Your task to perform on an android device: make emails show in primary in the gmail app Image 0: 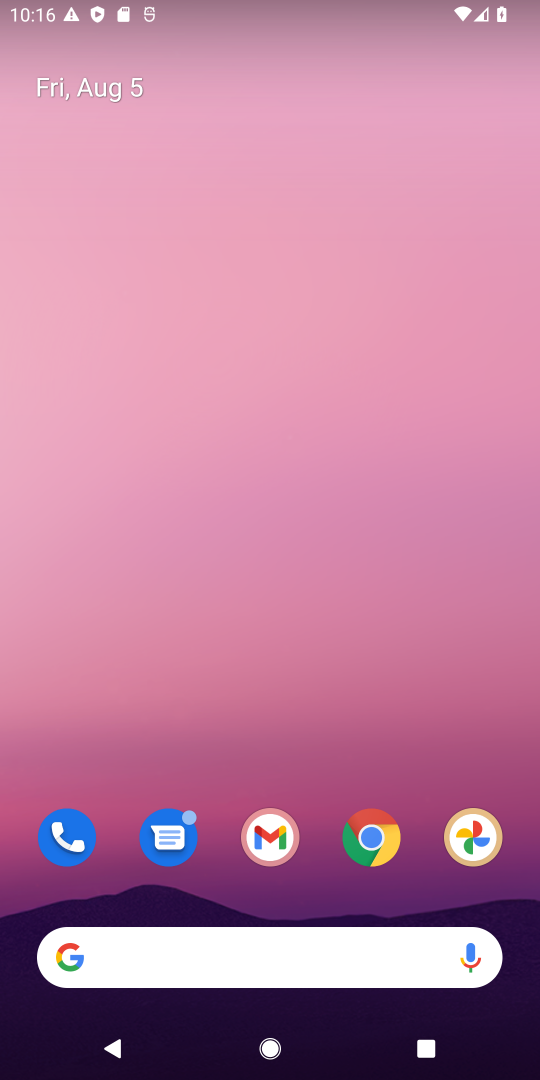
Step 0: click (269, 837)
Your task to perform on an android device: make emails show in primary in the gmail app Image 1: 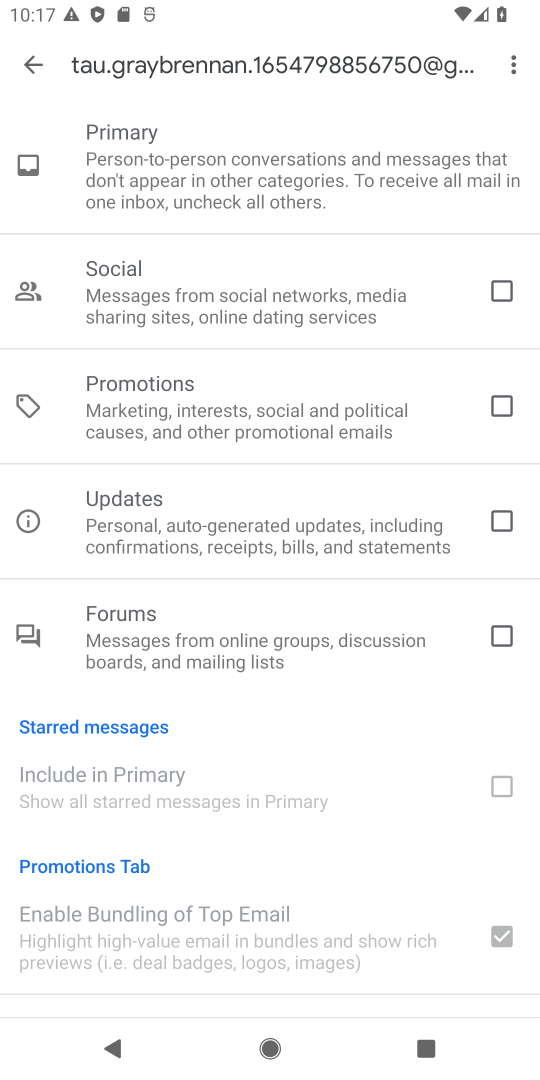
Step 1: click (37, 65)
Your task to perform on an android device: make emails show in primary in the gmail app Image 2: 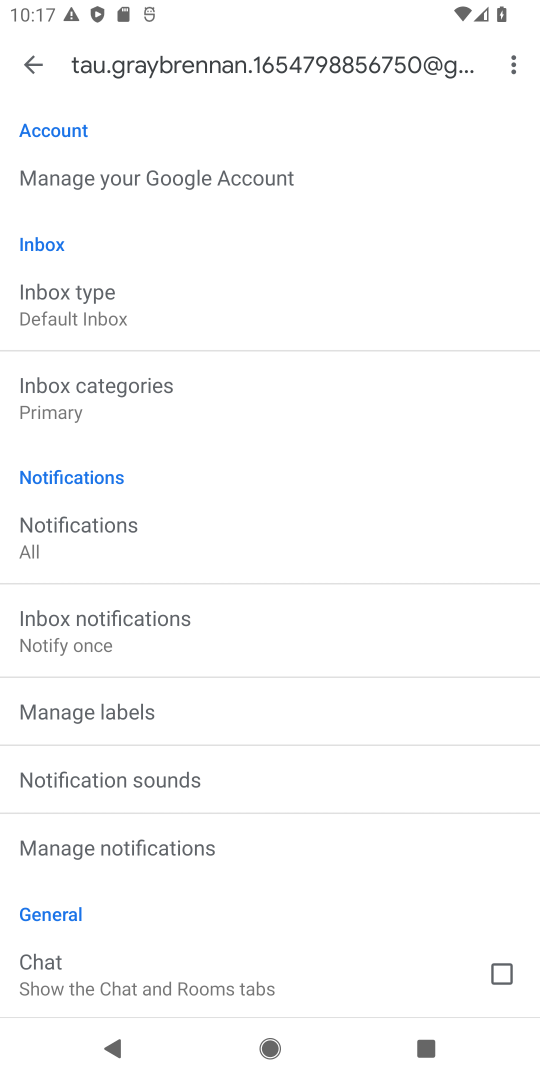
Step 2: task complete